Your task to perform on an android device: turn pop-ups on in chrome Image 0: 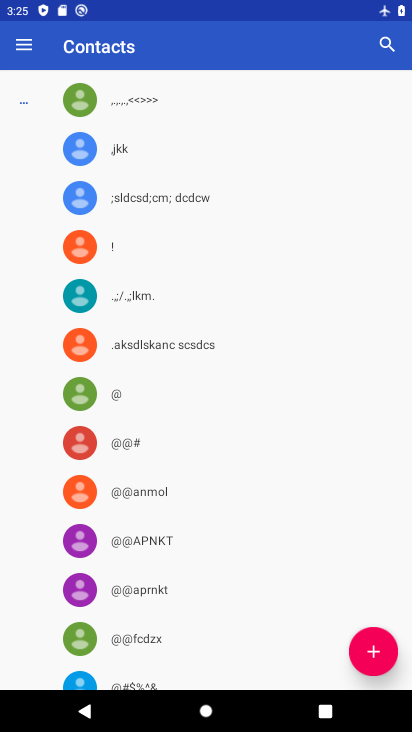
Step 0: press home button
Your task to perform on an android device: turn pop-ups on in chrome Image 1: 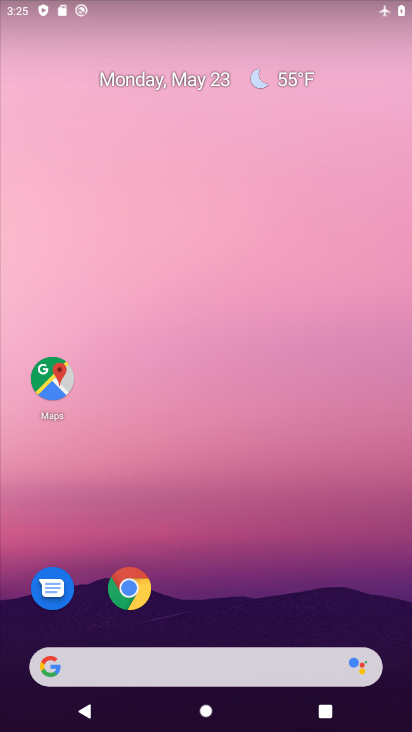
Step 1: click (126, 590)
Your task to perform on an android device: turn pop-ups on in chrome Image 2: 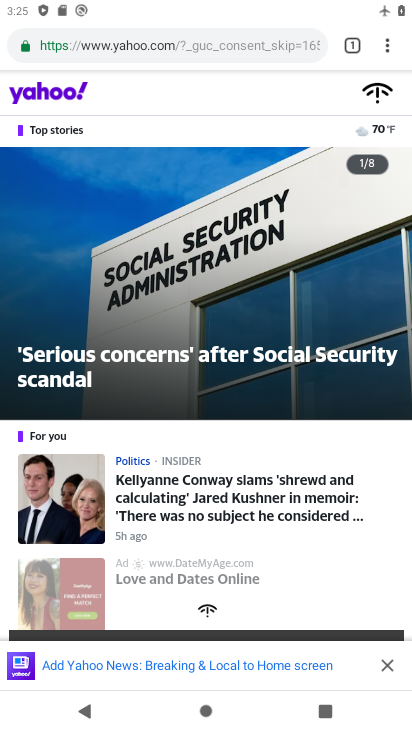
Step 2: click (378, 50)
Your task to perform on an android device: turn pop-ups on in chrome Image 3: 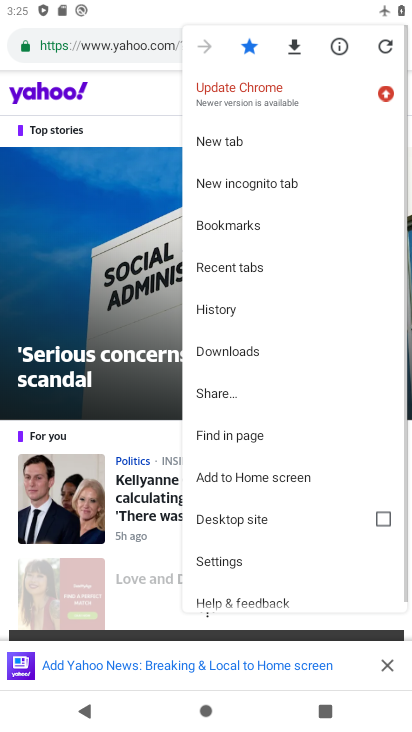
Step 3: click (252, 558)
Your task to perform on an android device: turn pop-ups on in chrome Image 4: 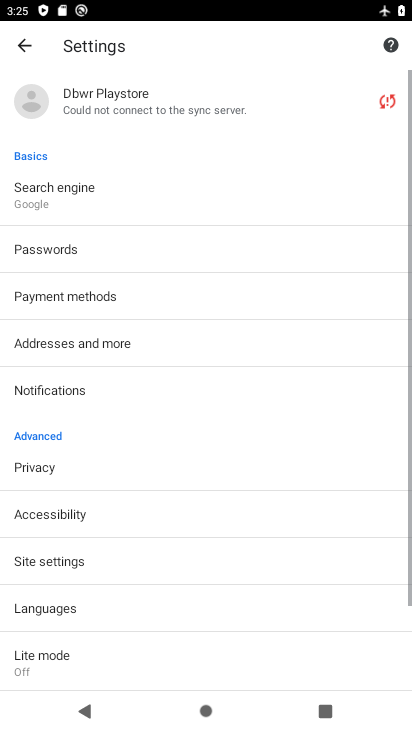
Step 4: drag from (214, 495) to (237, 339)
Your task to perform on an android device: turn pop-ups on in chrome Image 5: 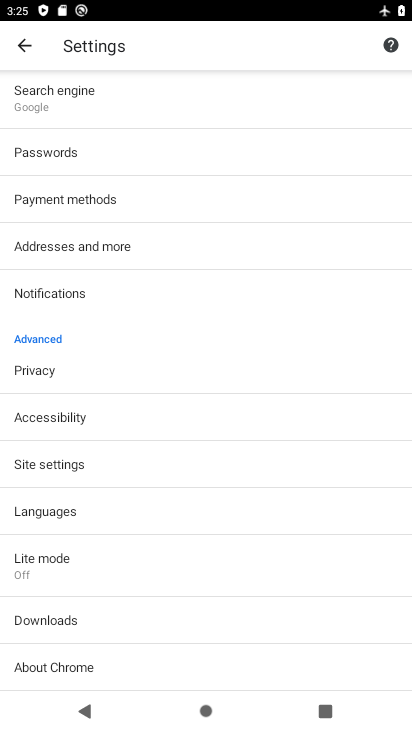
Step 5: click (23, 463)
Your task to perform on an android device: turn pop-ups on in chrome Image 6: 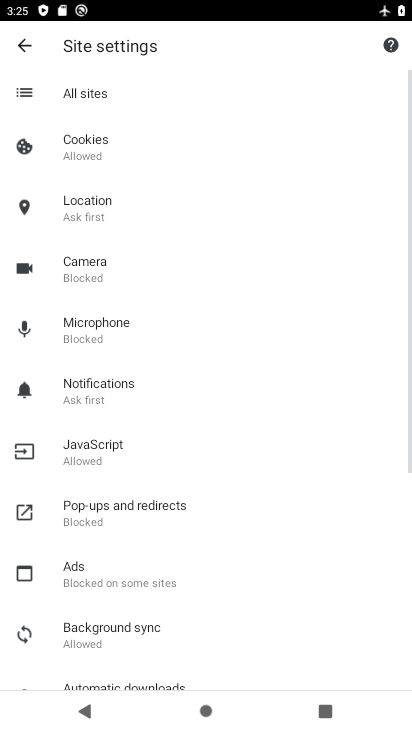
Step 6: click (135, 521)
Your task to perform on an android device: turn pop-ups on in chrome Image 7: 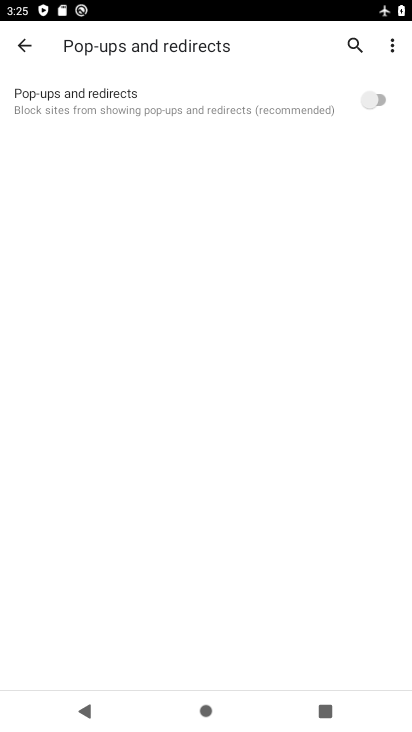
Step 7: click (384, 106)
Your task to perform on an android device: turn pop-ups on in chrome Image 8: 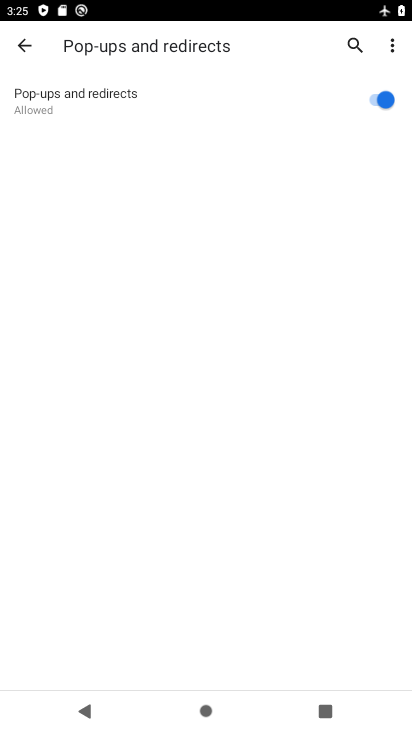
Step 8: task complete